Your task to perform on an android device: turn notification dots off Image 0: 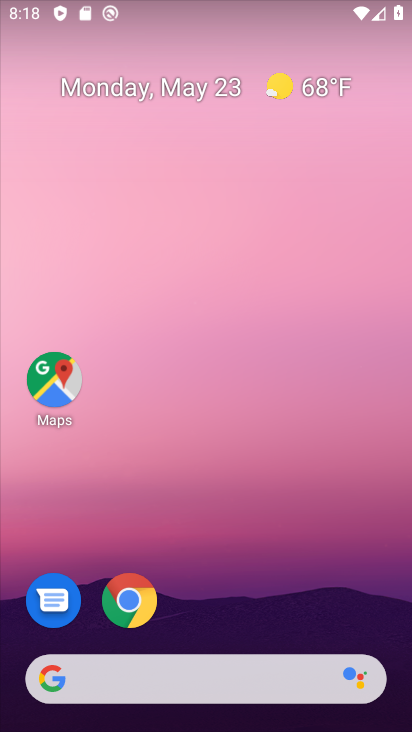
Step 0: drag from (27, 605) to (305, 186)
Your task to perform on an android device: turn notification dots off Image 1: 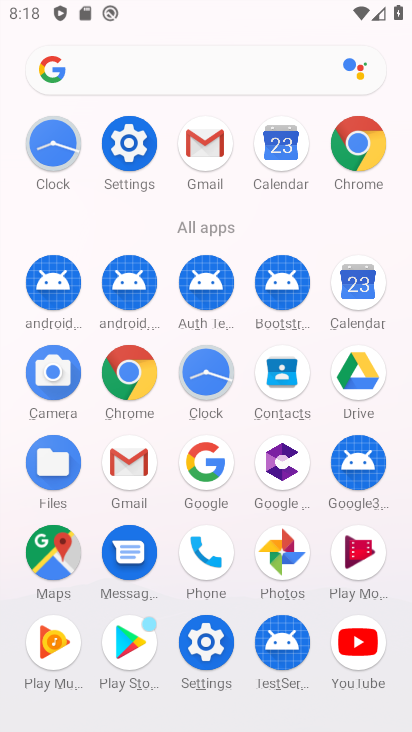
Step 1: click (126, 149)
Your task to perform on an android device: turn notification dots off Image 2: 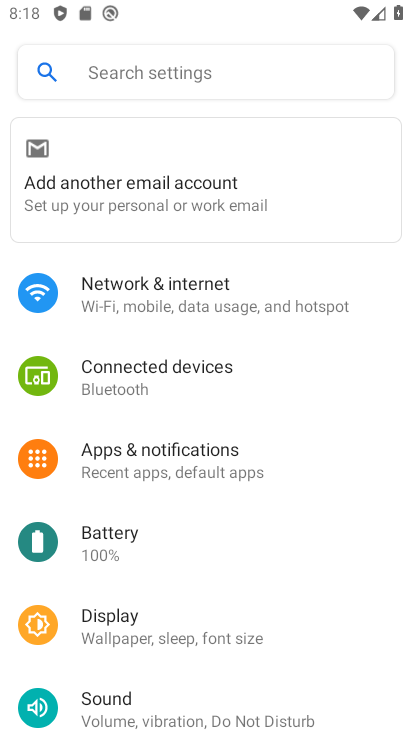
Step 2: click (133, 440)
Your task to perform on an android device: turn notification dots off Image 3: 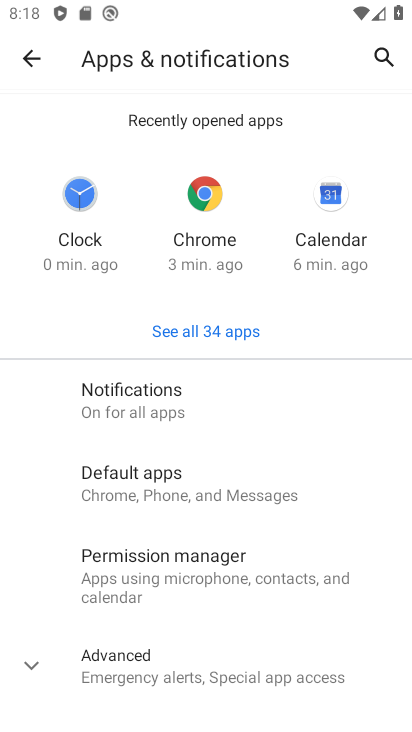
Step 3: drag from (69, 673) to (234, 238)
Your task to perform on an android device: turn notification dots off Image 4: 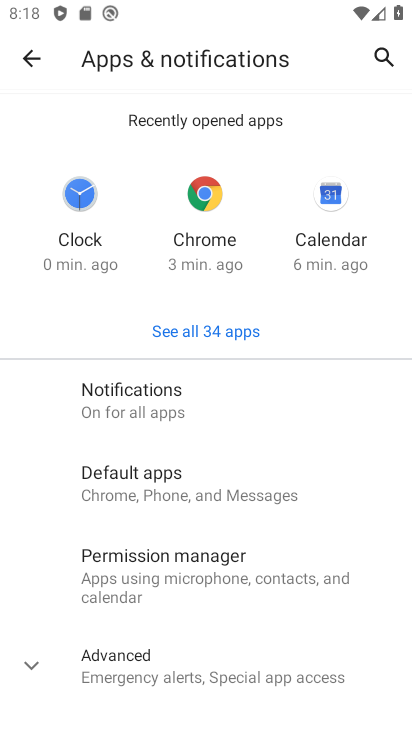
Step 4: click (98, 395)
Your task to perform on an android device: turn notification dots off Image 5: 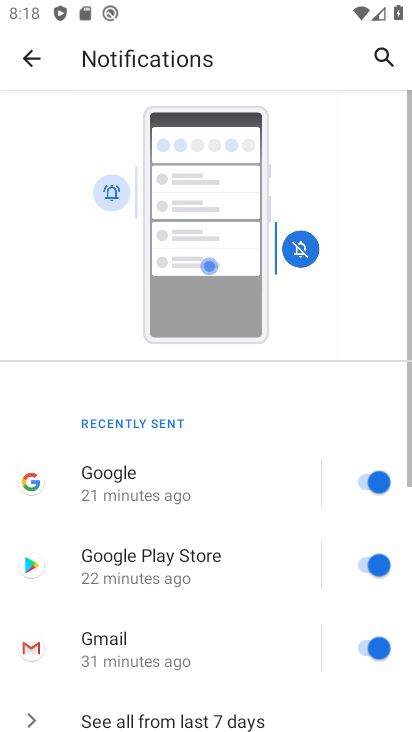
Step 5: drag from (169, 670) to (349, 202)
Your task to perform on an android device: turn notification dots off Image 6: 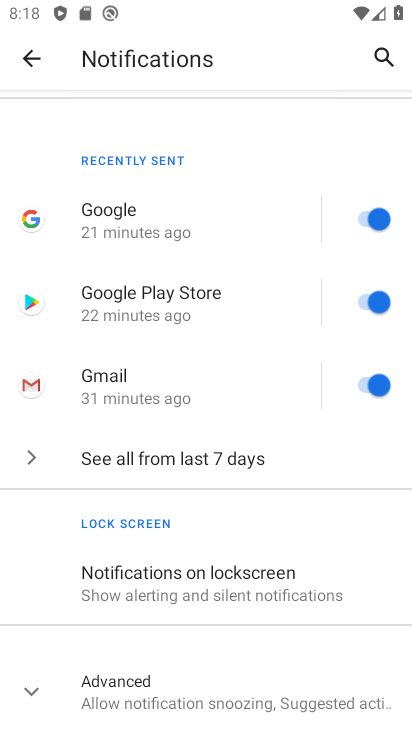
Step 6: click (81, 709)
Your task to perform on an android device: turn notification dots off Image 7: 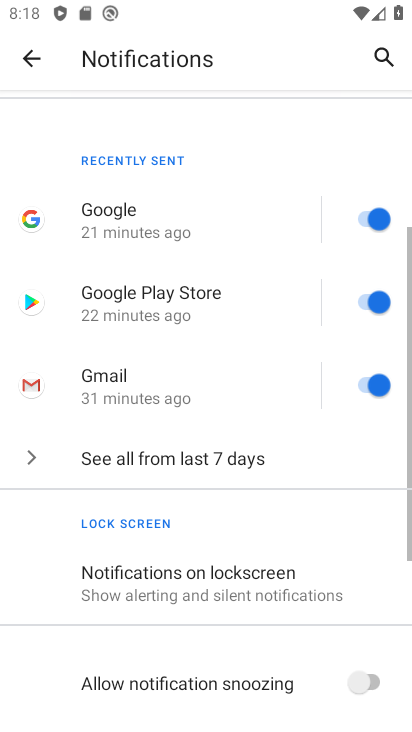
Step 7: drag from (119, 683) to (335, 223)
Your task to perform on an android device: turn notification dots off Image 8: 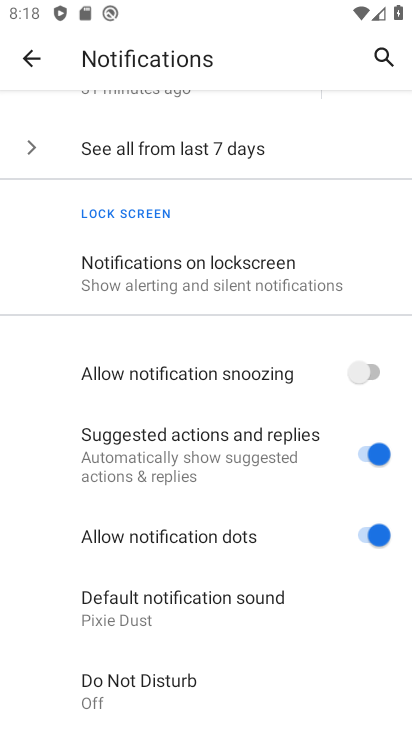
Step 8: click (384, 537)
Your task to perform on an android device: turn notification dots off Image 9: 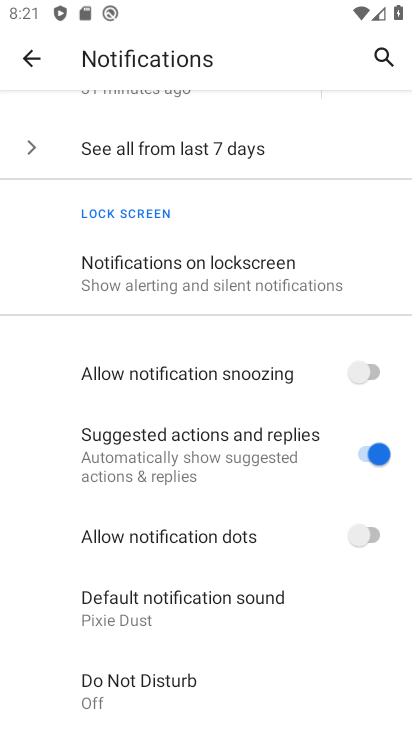
Step 9: task complete